Your task to perform on an android device: turn off notifications settings in the gmail app Image 0: 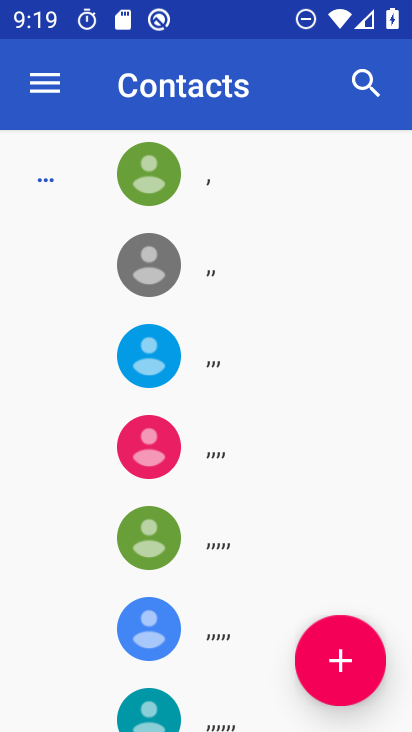
Step 0: press home button
Your task to perform on an android device: turn off notifications settings in the gmail app Image 1: 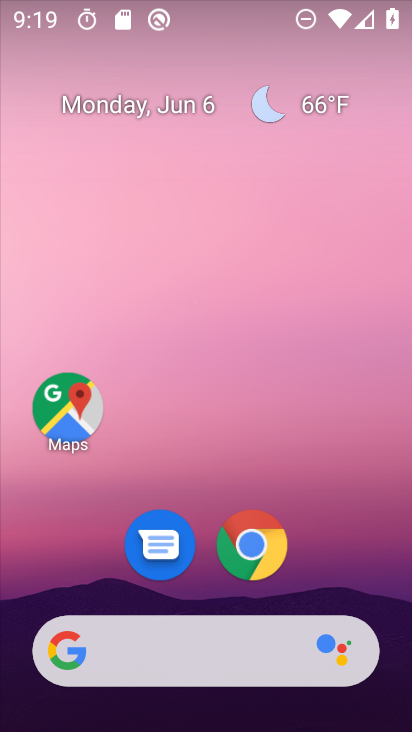
Step 1: drag from (196, 596) to (397, 18)
Your task to perform on an android device: turn off notifications settings in the gmail app Image 2: 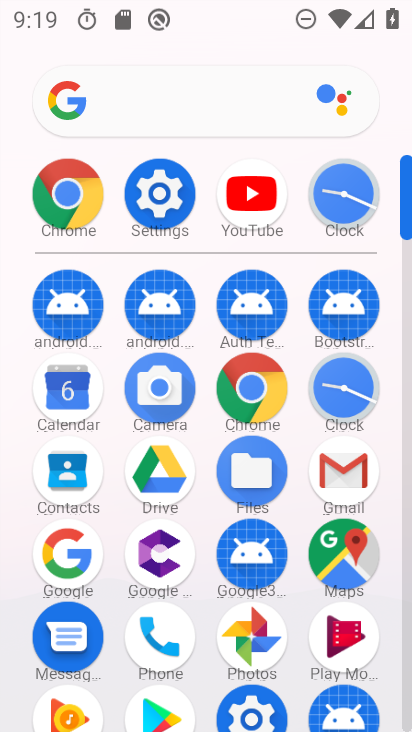
Step 2: click (332, 460)
Your task to perform on an android device: turn off notifications settings in the gmail app Image 3: 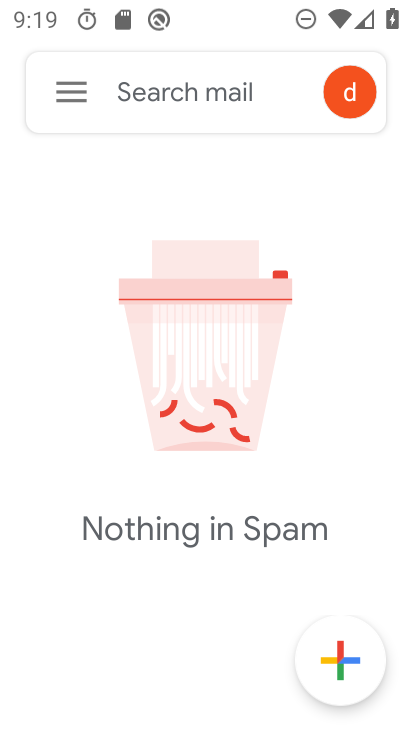
Step 3: click (59, 94)
Your task to perform on an android device: turn off notifications settings in the gmail app Image 4: 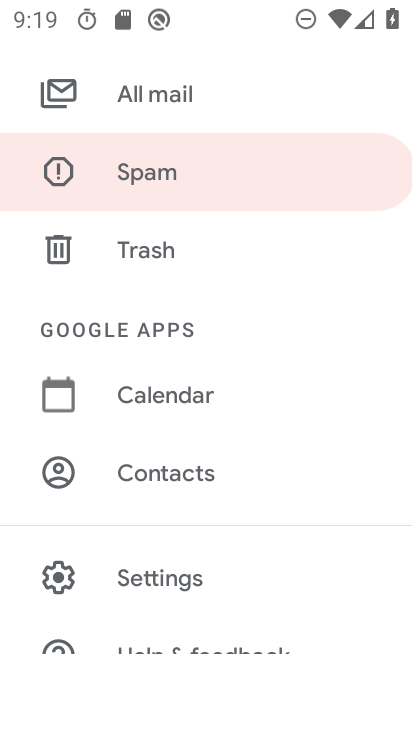
Step 4: click (135, 573)
Your task to perform on an android device: turn off notifications settings in the gmail app Image 5: 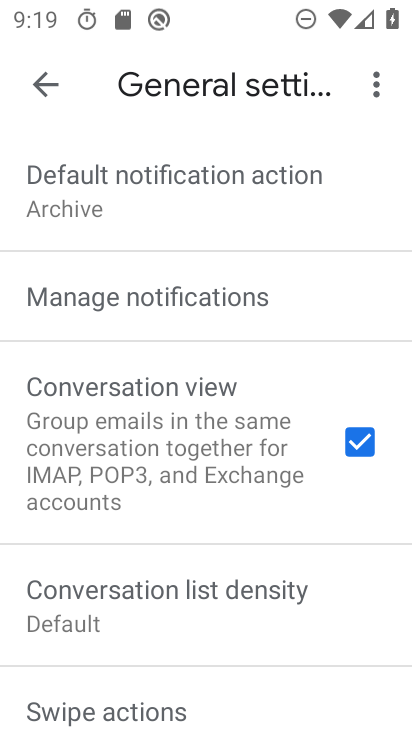
Step 5: click (166, 300)
Your task to perform on an android device: turn off notifications settings in the gmail app Image 6: 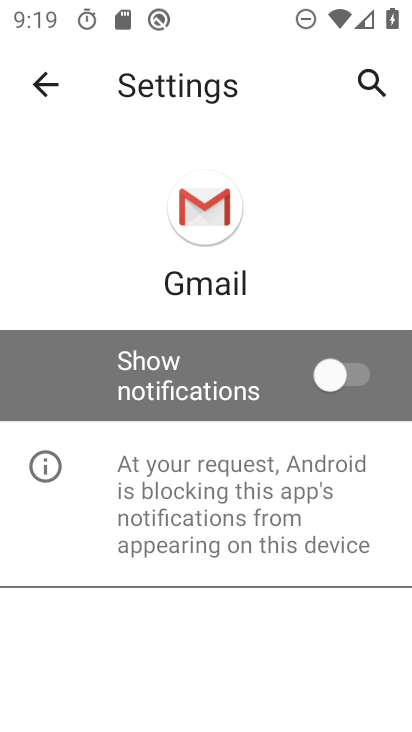
Step 6: task complete